Your task to perform on an android device: Is it going to rain this weekend? Image 0: 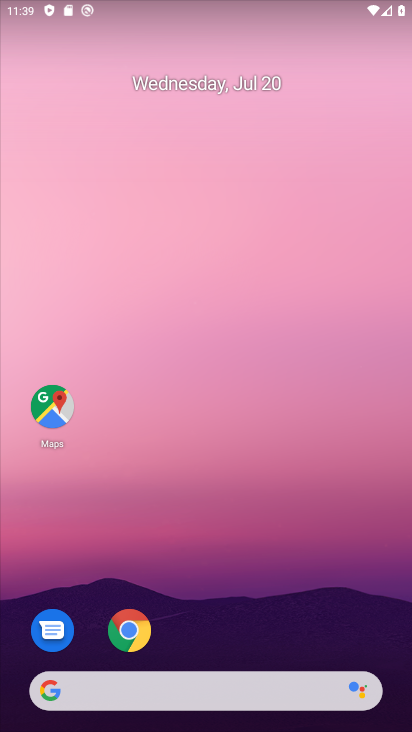
Step 0: drag from (183, 650) to (183, 215)
Your task to perform on an android device: Is it going to rain this weekend? Image 1: 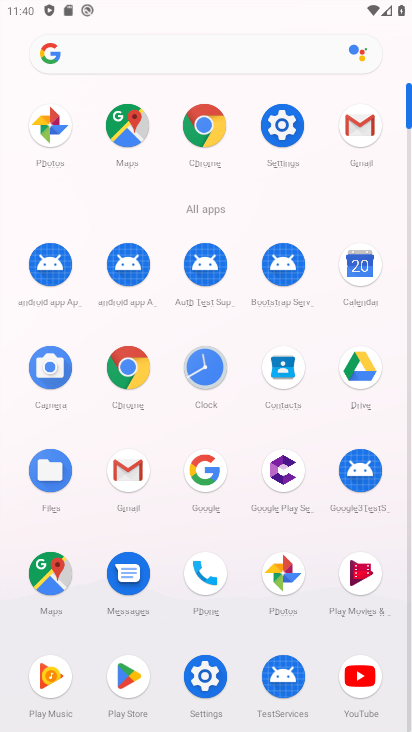
Step 1: click (360, 263)
Your task to perform on an android device: Is it going to rain this weekend? Image 2: 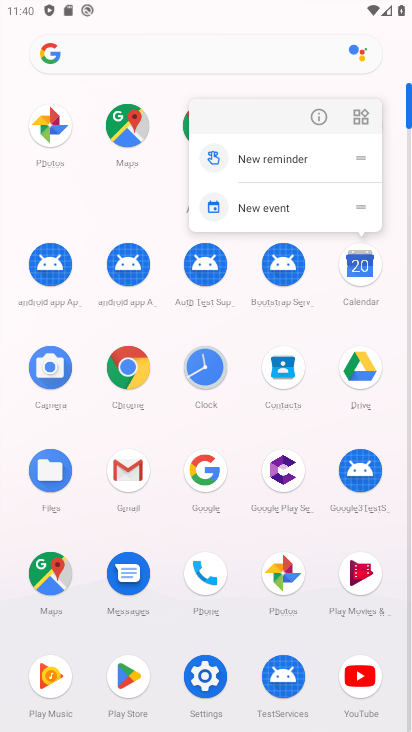
Step 2: click (195, 50)
Your task to perform on an android device: Is it going to rain this weekend? Image 3: 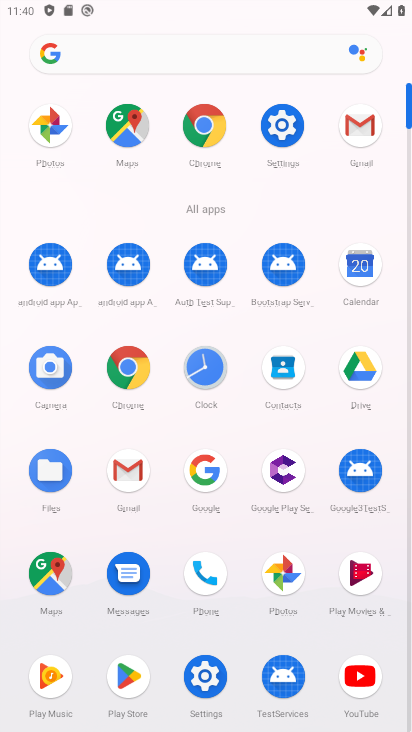
Step 3: click (148, 44)
Your task to perform on an android device: Is it going to rain this weekend? Image 4: 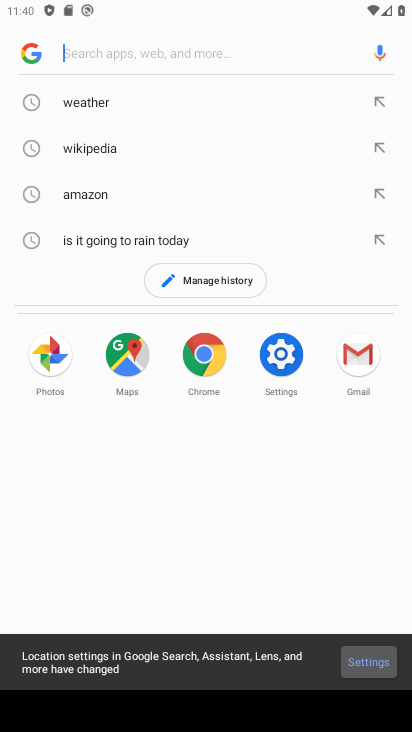
Step 4: type "Is it going to rain this weekend?"
Your task to perform on an android device: Is it going to rain this weekend? Image 5: 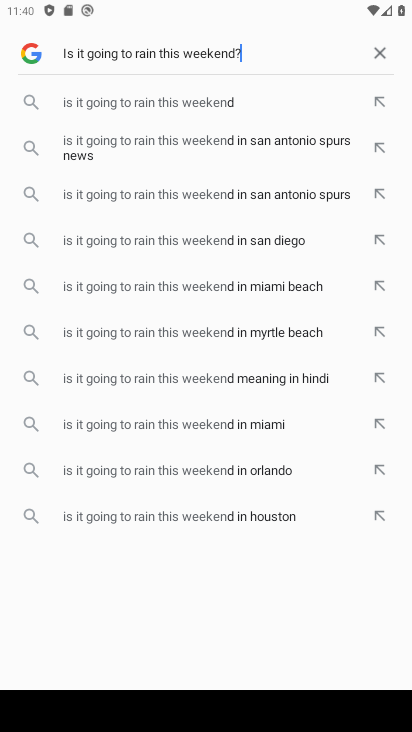
Step 5: type ""
Your task to perform on an android device: Is it going to rain this weekend? Image 6: 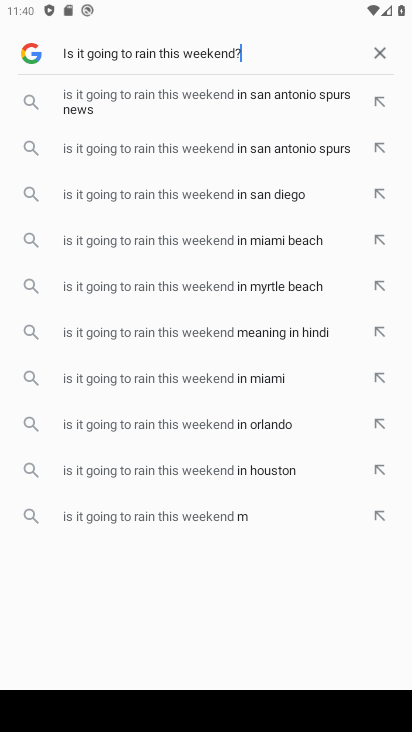
Step 6: click (129, 197)
Your task to perform on an android device: Is it going to rain this weekend? Image 7: 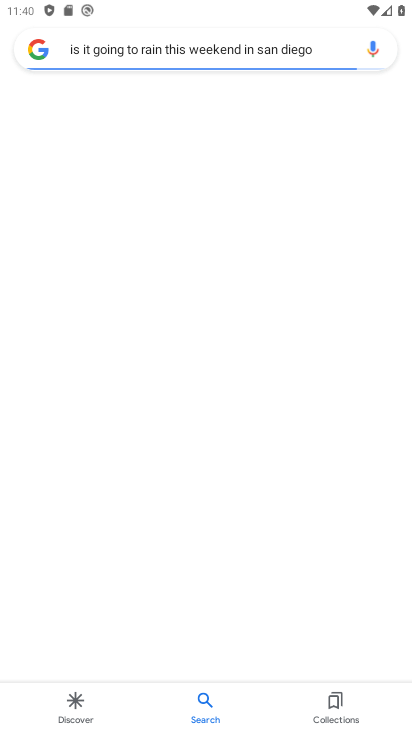
Step 7: task complete